Your task to perform on an android device: Go to Android settings Image 0: 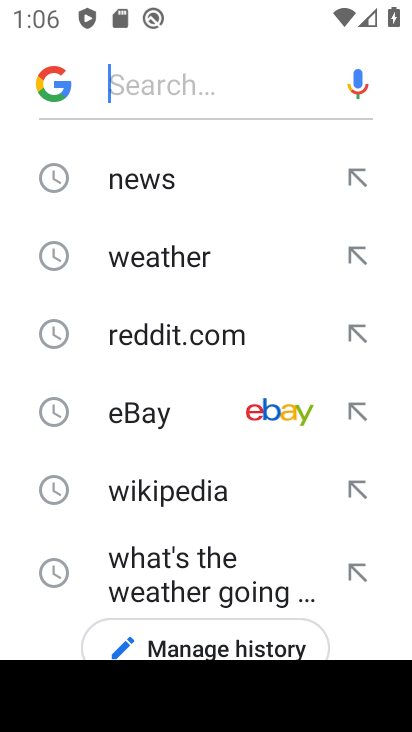
Step 0: press home button
Your task to perform on an android device: Go to Android settings Image 1: 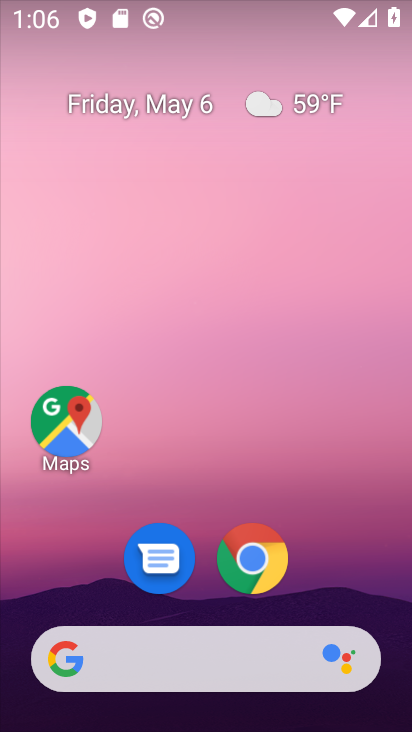
Step 1: drag from (198, 707) to (194, 267)
Your task to perform on an android device: Go to Android settings Image 2: 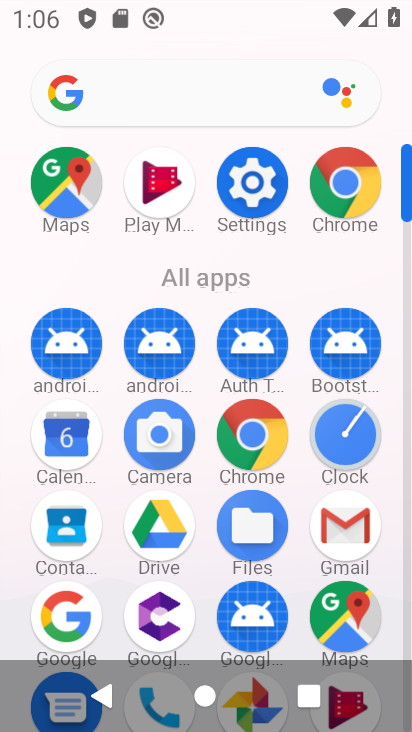
Step 2: click (253, 176)
Your task to perform on an android device: Go to Android settings Image 3: 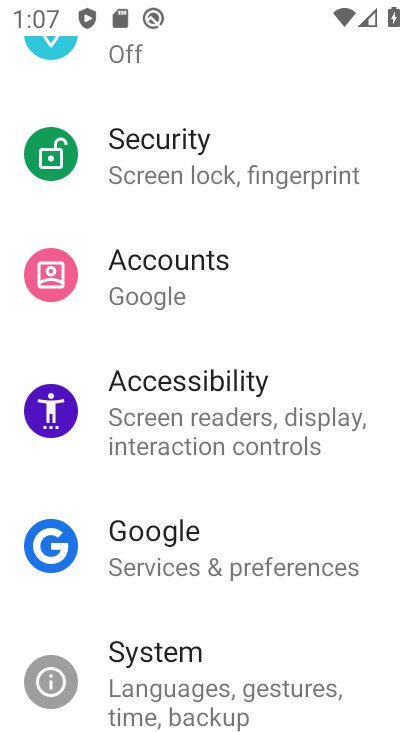
Step 3: task complete